Your task to perform on an android device: Go to sound settings Image 0: 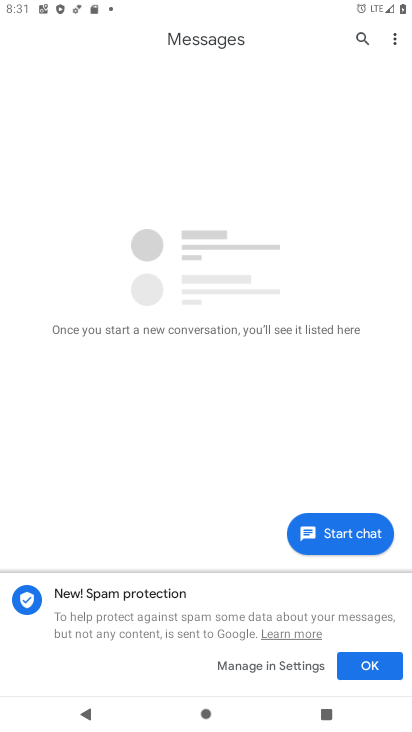
Step 0: press home button
Your task to perform on an android device: Go to sound settings Image 1: 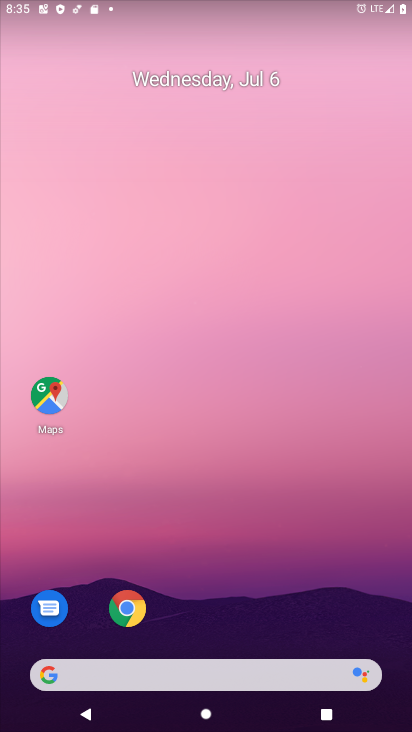
Step 1: drag from (384, 620) to (327, 116)
Your task to perform on an android device: Go to sound settings Image 2: 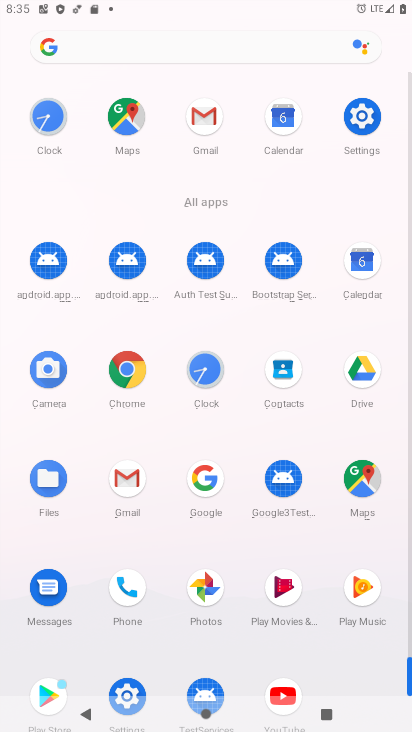
Step 2: click (355, 122)
Your task to perform on an android device: Go to sound settings Image 3: 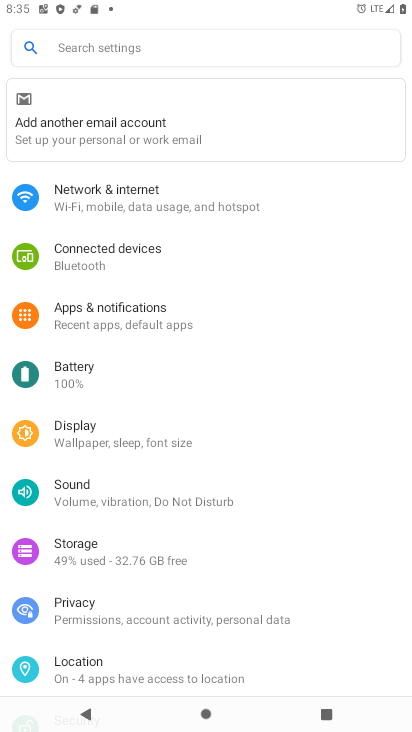
Step 3: click (169, 497)
Your task to perform on an android device: Go to sound settings Image 4: 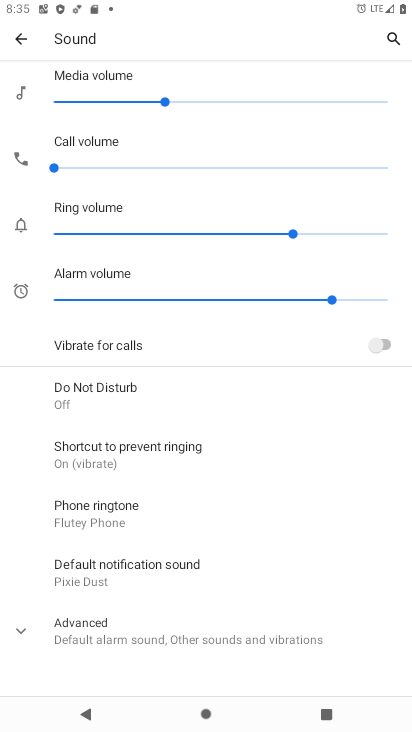
Step 4: task complete